Your task to perform on an android device: Play the last video I watched on Youtube Image 0: 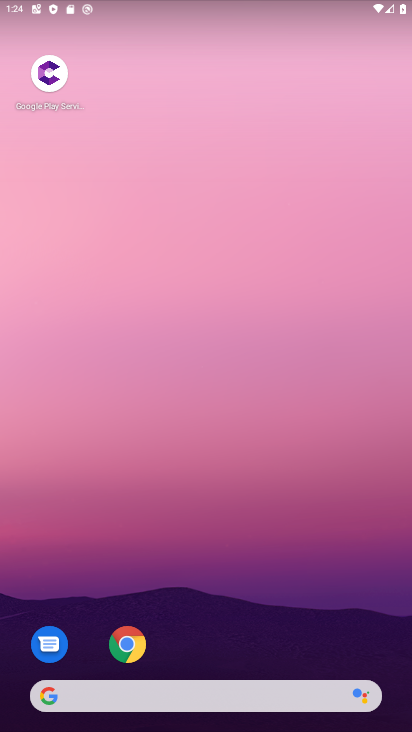
Step 0: drag from (272, 601) to (321, 73)
Your task to perform on an android device: Play the last video I watched on Youtube Image 1: 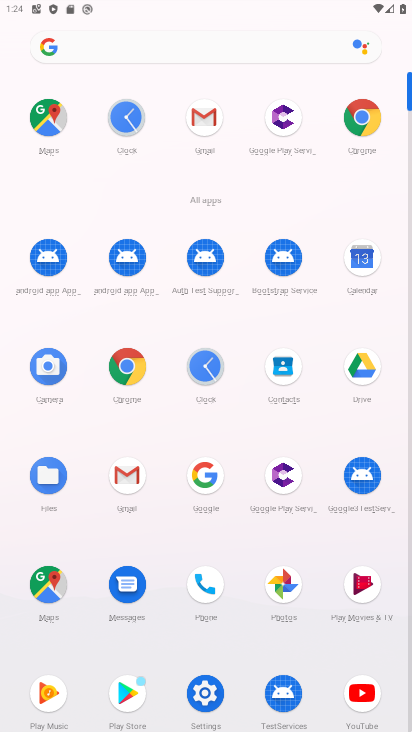
Step 1: click (362, 676)
Your task to perform on an android device: Play the last video I watched on Youtube Image 2: 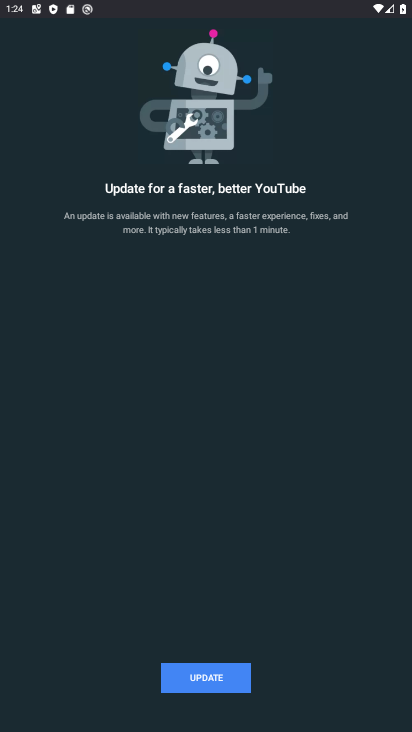
Step 2: click (208, 684)
Your task to perform on an android device: Play the last video I watched on Youtube Image 3: 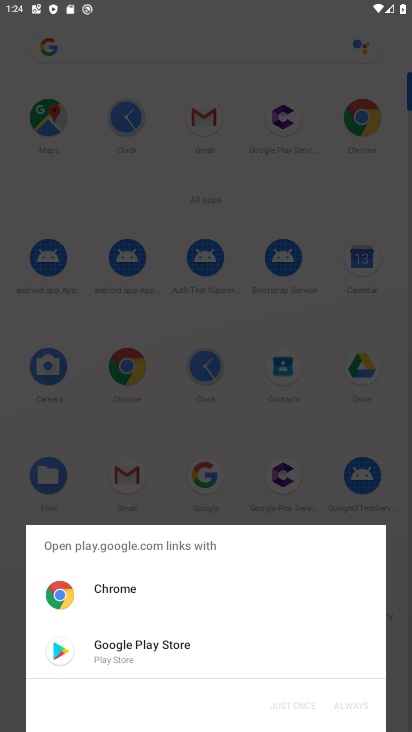
Step 3: click (133, 638)
Your task to perform on an android device: Play the last video I watched on Youtube Image 4: 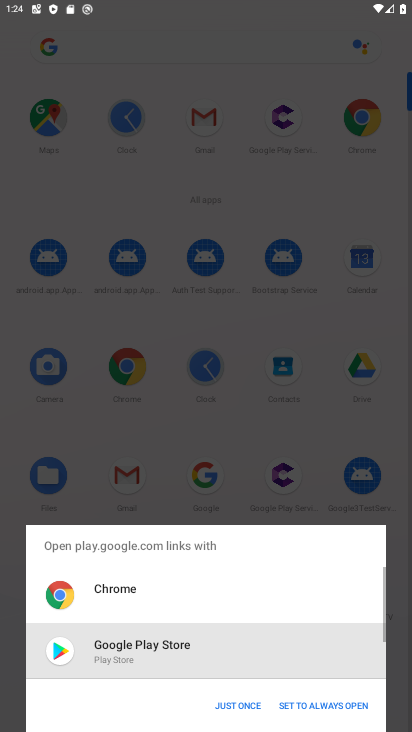
Step 4: click (224, 713)
Your task to perform on an android device: Play the last video I watched on Youtube Image 5: 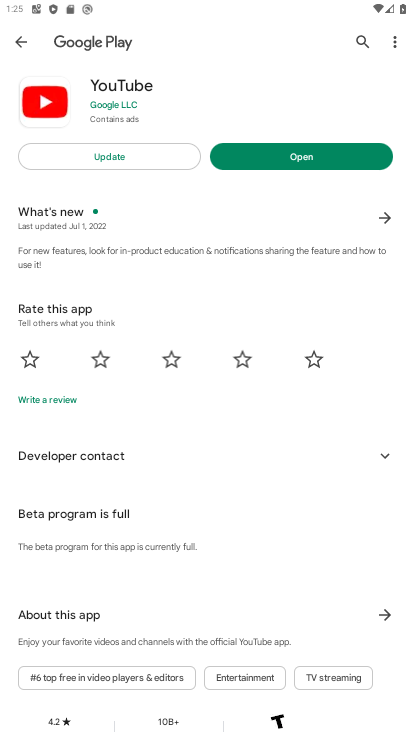
Step 5: click (124, 151)
Your task to perform on an android device: Play the last video I watched on Youtube Image 6: 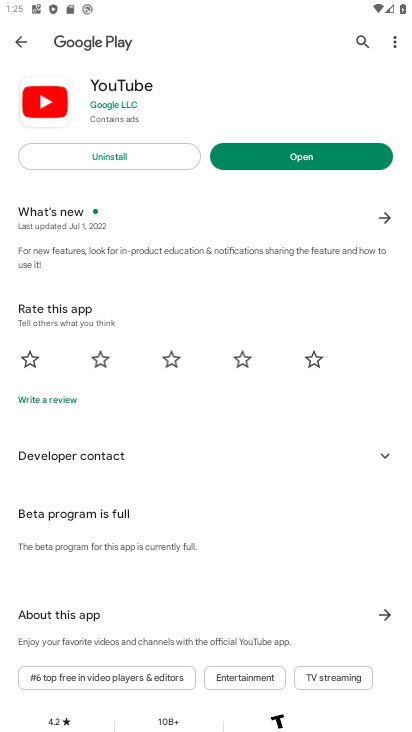
Step 6: click (280, 151)
Your task to perform on an android device: Play the last video I watched on Youtube Image 7: 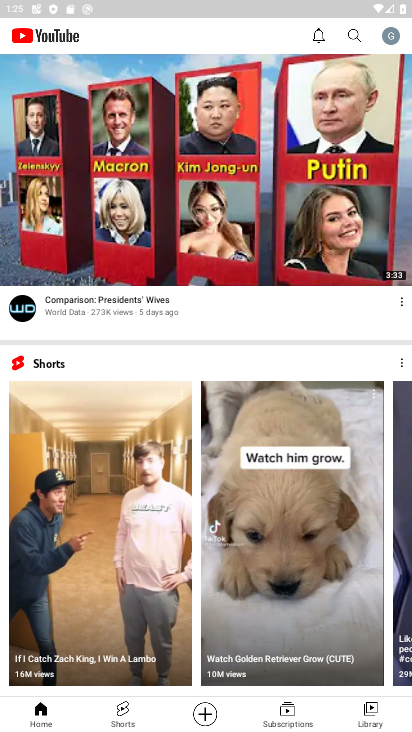
Step 7: click (369, 724)
Your task to perform on an android device: Play the last video I watched on Youtube Image 8: 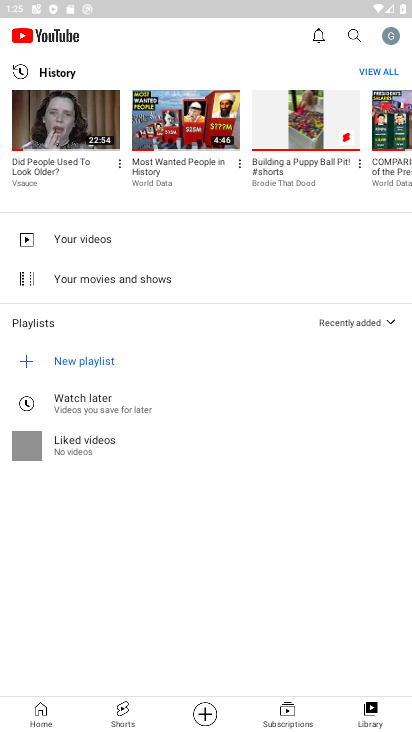
Step 8: click (54, 116)
Your task to perform on an android device: Play the last video I watched on Youtube Image 9: 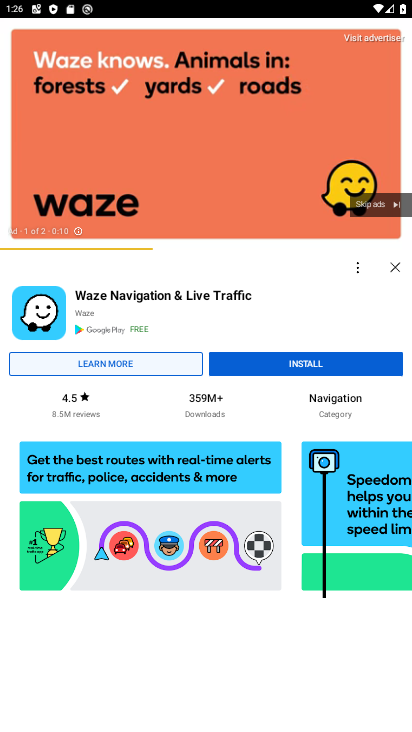
Step 9: task complete